Your task to perform on an android device: Open network settings Image 0: 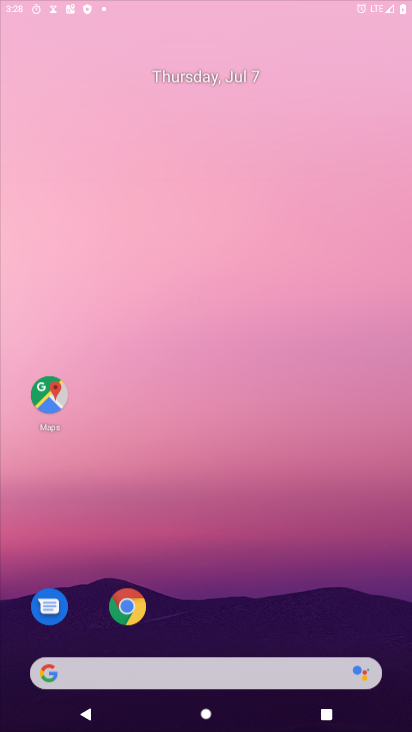
Step 0: drag from (249, 715) to (246, 211)
Your task to perform on an android device: Open network settings Image 1: 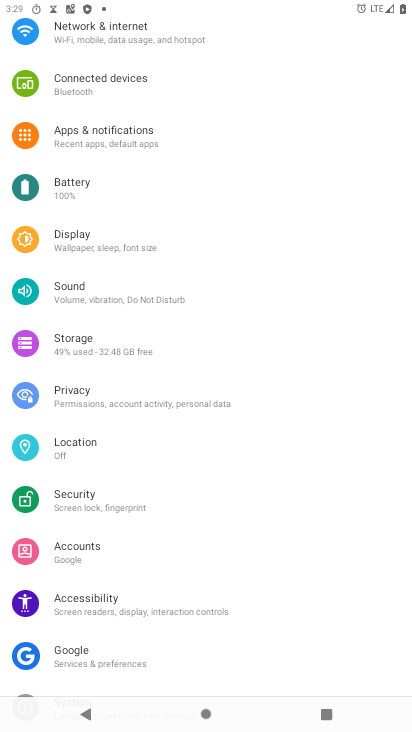
Step 1: press home button
Your task to perform on an android device: Open network settings Image 2: 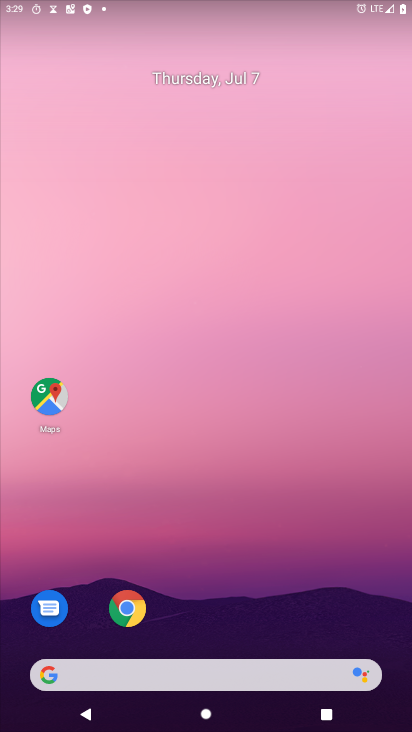
Step 2: drag from (264, 708) to (254, 190)
Your task to perform on an android device: Open network settings Image 3: 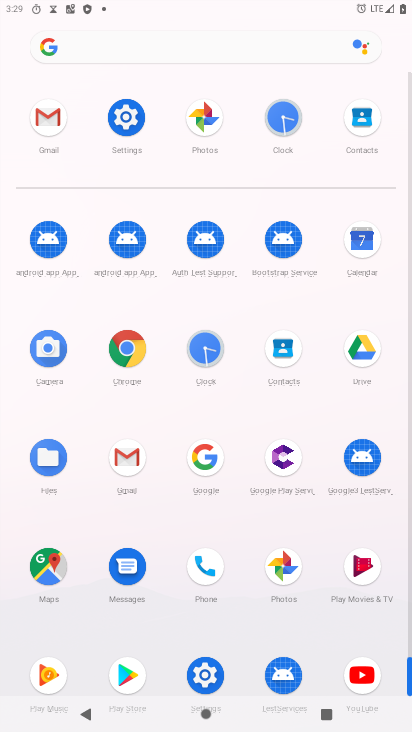
Step 3: click (120, 123)
Your task to perform on an android device: Open network settings Image 4: 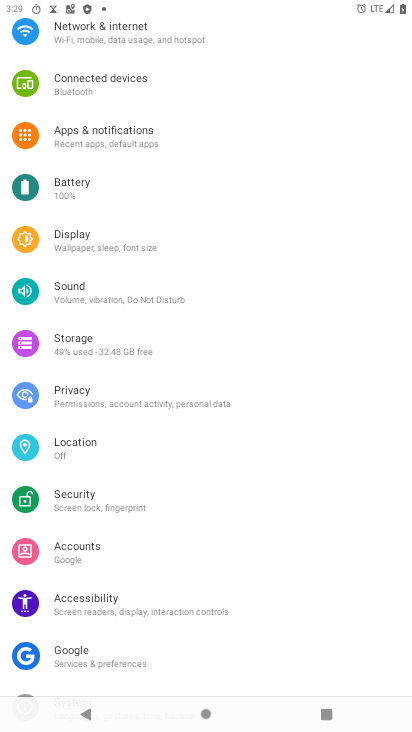
Step 4: click (93, 37)
Your task to perform on an android device: Open network settings Image 5: 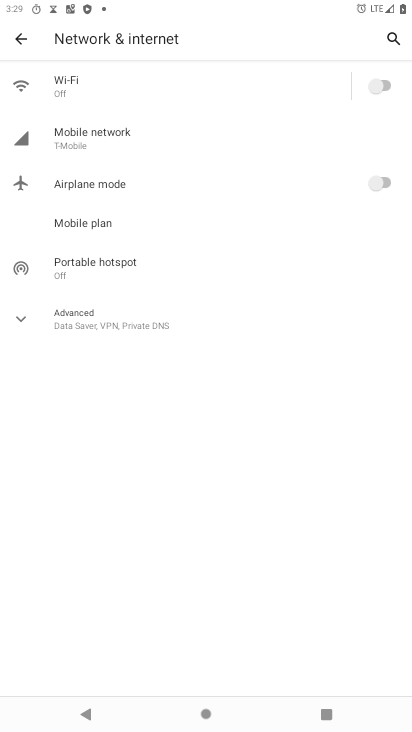
Step 5: task complete